Your task to perform on an android device: Open settings on Google Maps Image 0: 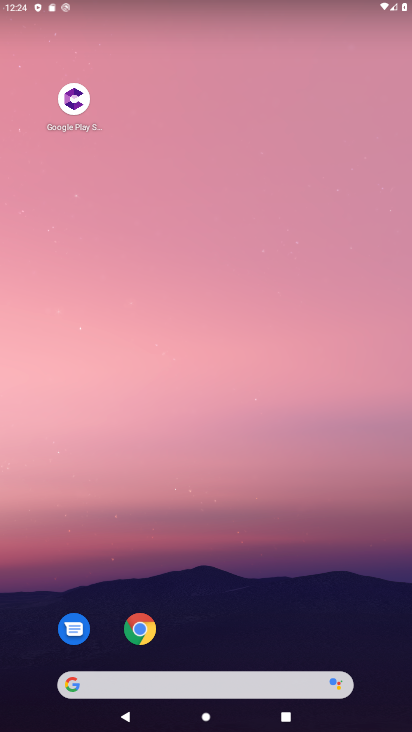
Step 0: drag from (212, 656) to (191, 143)
Your task to perform on an android device: Open settings on Google Maps Image 1: 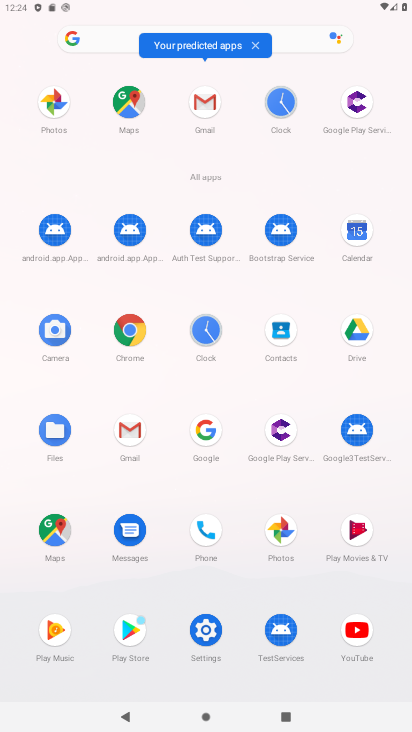
Step 1: click (54, 535)
Your task to perform on an android device: Open settings on Google Maps Image 2: 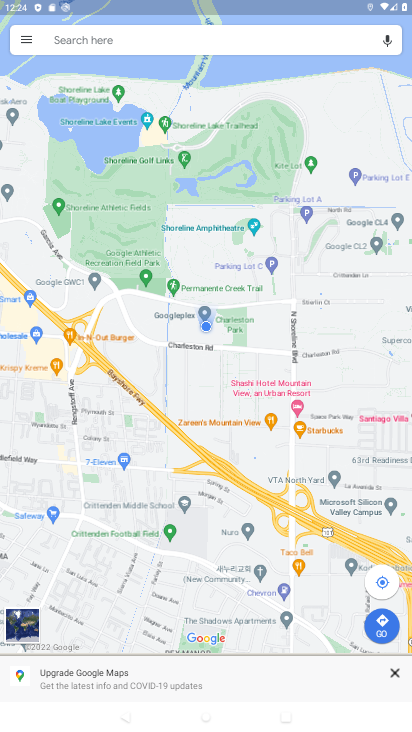
Step 2: click (33, 37)
Your task to perform on an android device: Open settings on Google Maps Image 3: 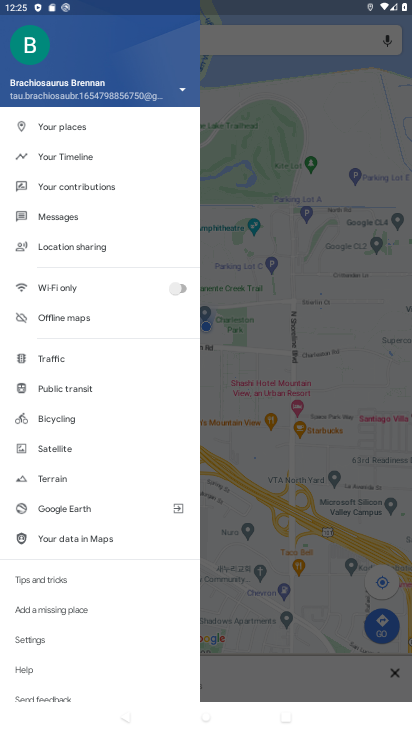
Step 3: click (39, 644)
Your task to perform on an android device: Open settings on Google Maps Image 4: 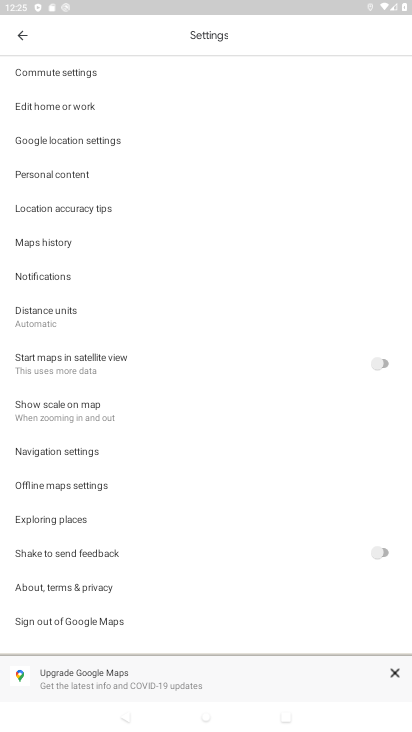
Step 4: task complete